Your task to perform on an android device: Do I have any events this weekend? Image 0: 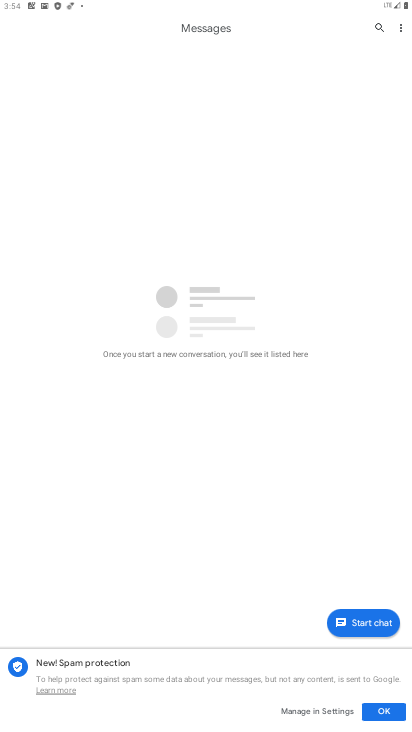
Step 0: press home button
Your task to perform on an android device: Do I have any events this weekend? Image 1: 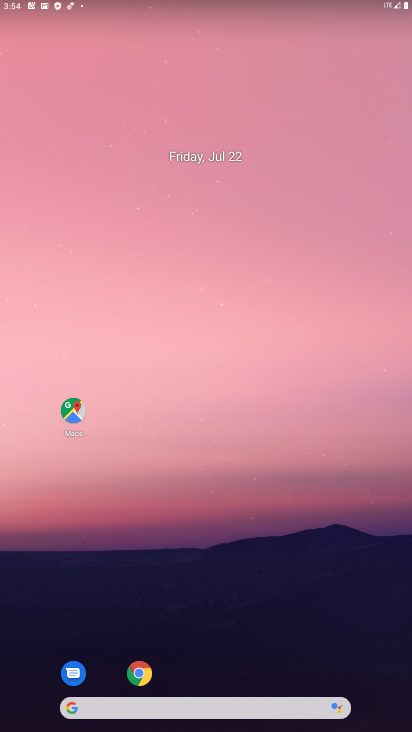
Step 1: drag from (253, 651) to (261, 124)
Your task to perform on an android device: Do I have any events this weekend? Image 2: 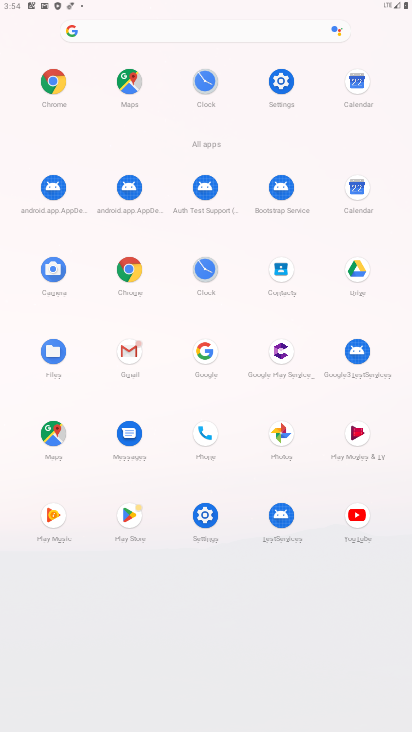
Step 2: click (359, 192)
Your task to perform on an android device: Do I have any events this weekend? Image 3: 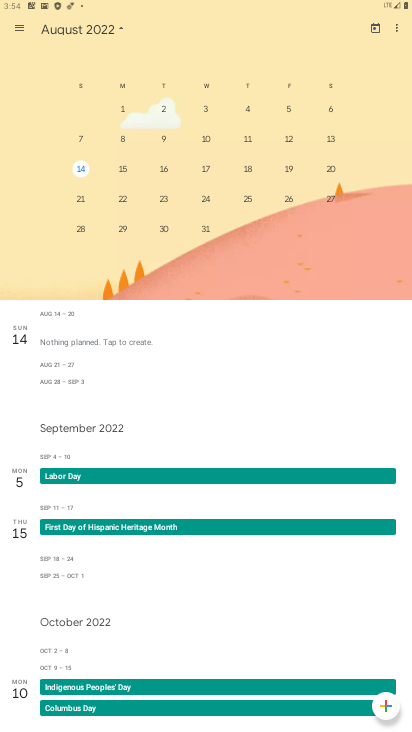
Step 3: drag from (45, 181) to (341, 172)
Your task to perform on an android device: Do I have any events this weekend? Image 4: 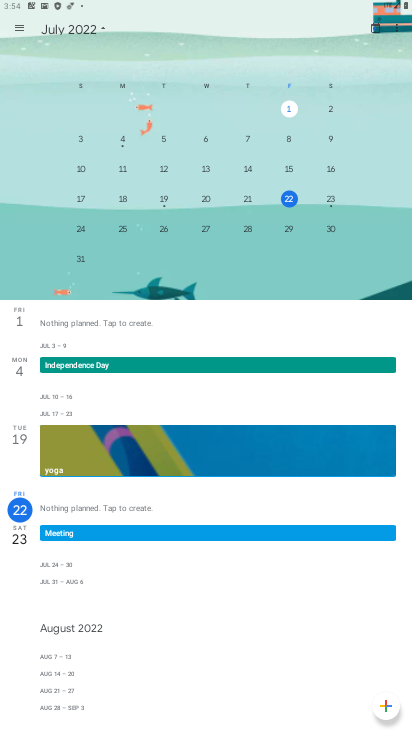
Step 4: click (333, 199)
Your task to perform on an android device: Do I have any events this weekend? Image 5: 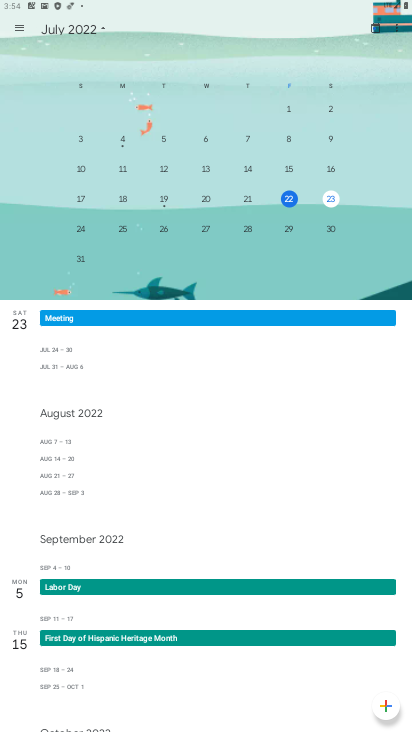
Step 5: task complete